Your task to perform on an android device: Go to internet settings Image 0: 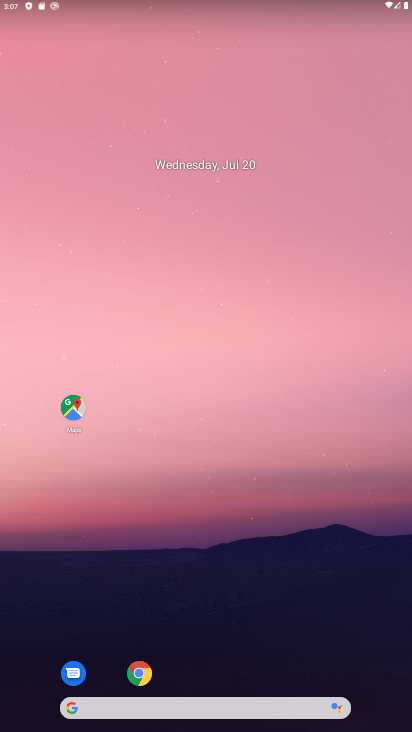
Step 0: drag from (128, 418) to (10, 539)
Your task to perform on an android device: Go to internet settings Image 1: 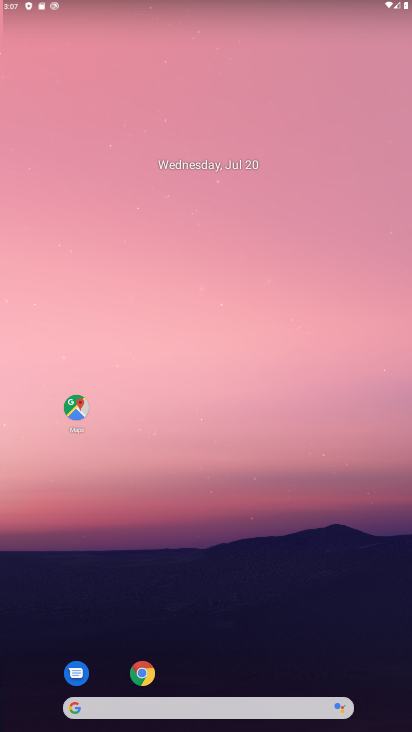
Step 1: drag from (211, 662) to (191, 335)
Your task to perform on an android device: Go to internet settings Image 2: 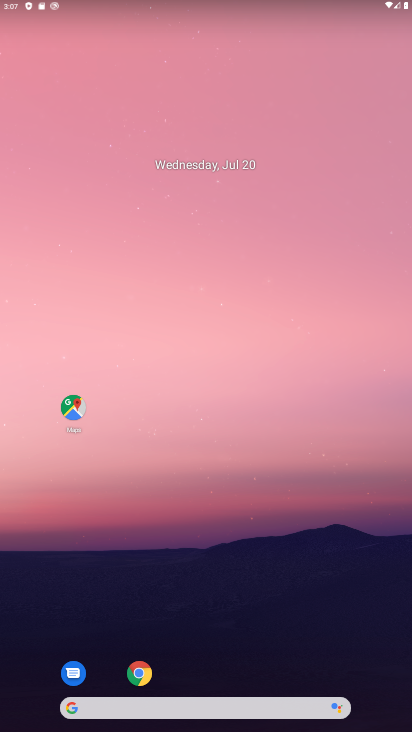
Step 2: drag from (194, 652) to (146, 232)
Your task to perform on an android device: Go to internet settings Image 3: 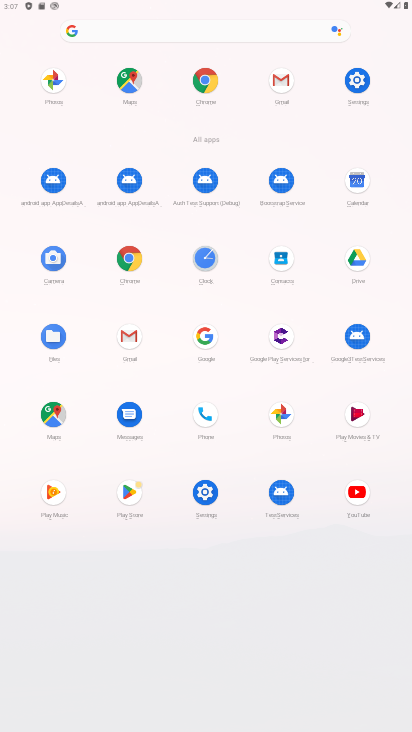
Step 3: click (368, 71)
Your task to perform on an android device: Go to internet settings Image 4: 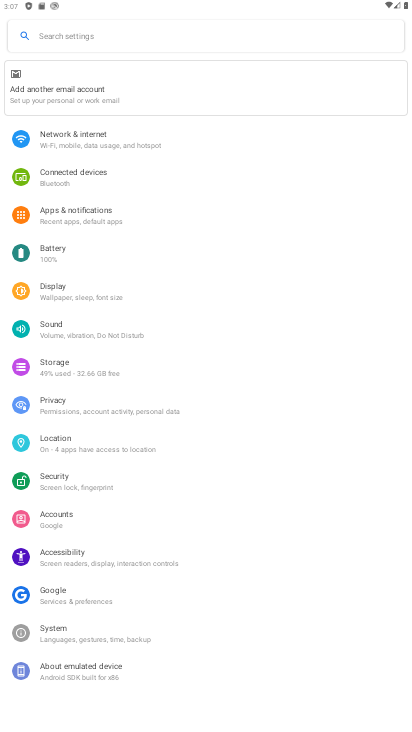
Step 4: click (94, 150)
Your task to perform on an android device: Go to internet settings Image 5: 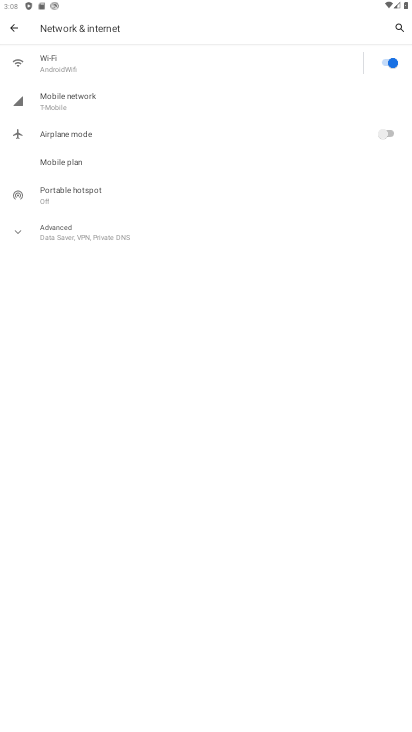
Step 5: task complete